Your task to perform on an android device: Go to sound settings Image 0: 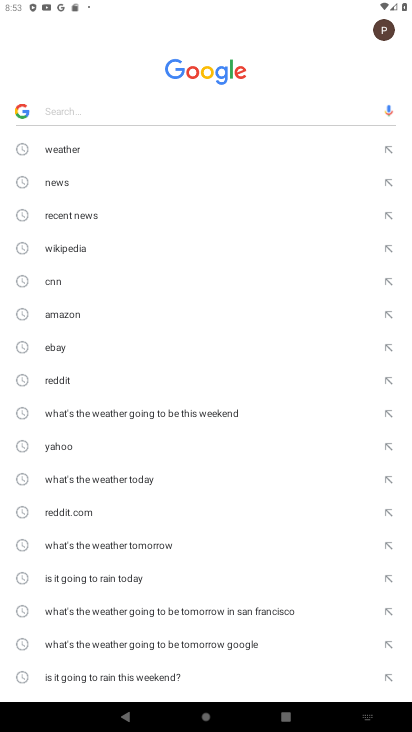
Step 0: press home button
Your task to perform on an android device: Go to sound settings Image 1: 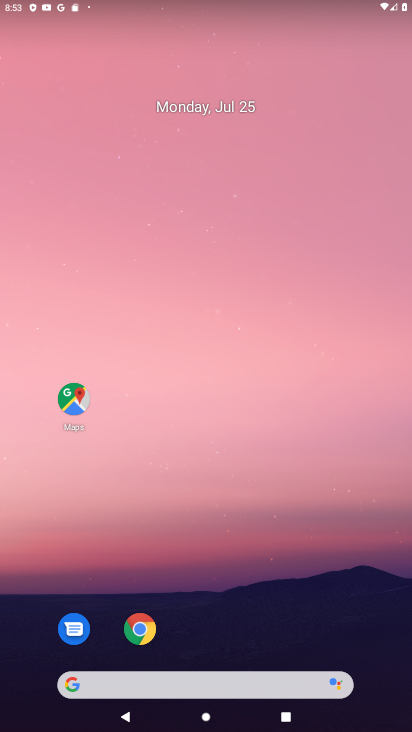
Step 1: drag from (209, 618) to (150, 51)
Your task to perform on an android device: Go to sound settings Image 2: 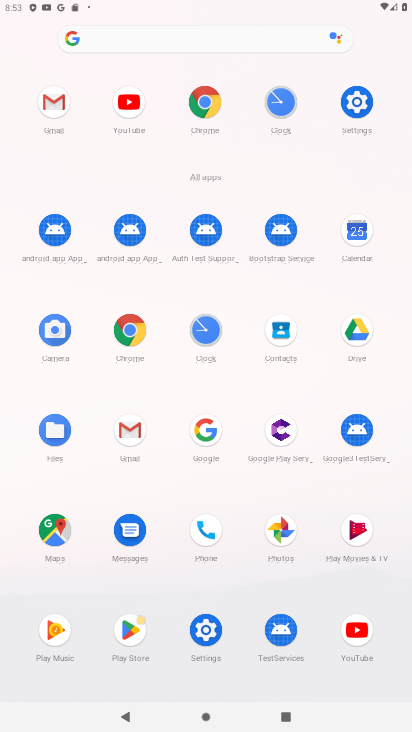
Step 2: click (368, 104)
Your task to perform on an android device: Go to sound settings Image 3: 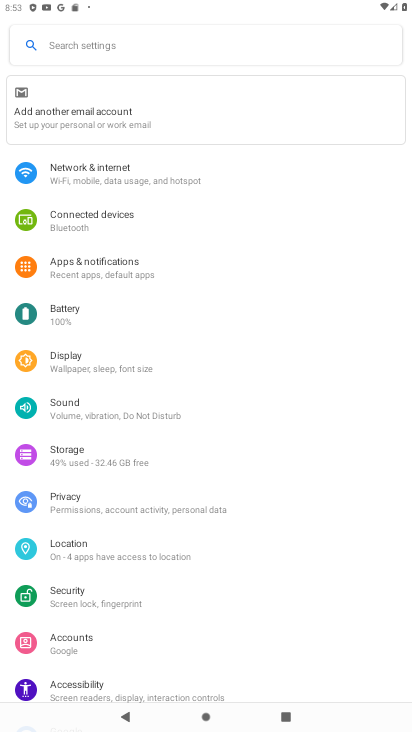
Step 3: click (106, 410)
Your task to perform on an android device: Go to sound settings Image 4: 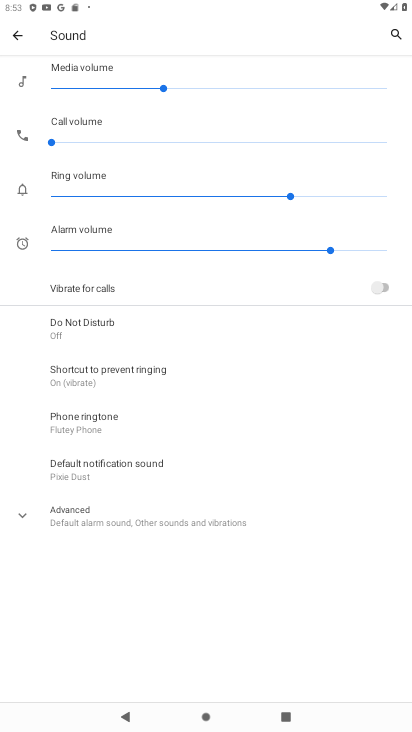
Step 4: task complete